Your task to perform on an android device: Open Google Maps and go to "Timeline" Image 0: 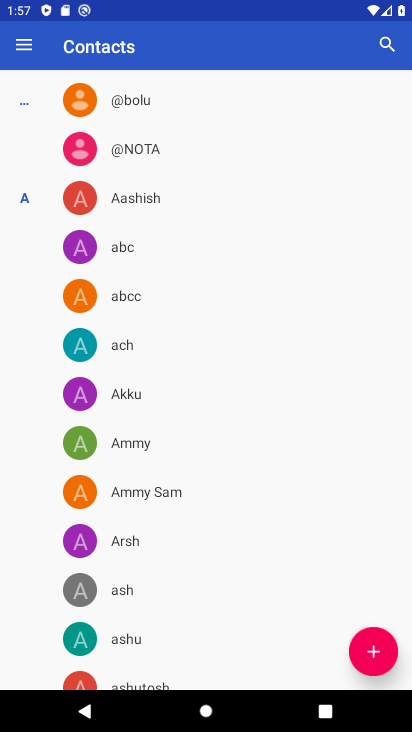
Step 0: press home button
Your task to perform on an android device: Open Google Maps and go to "Timeline" Image 1: 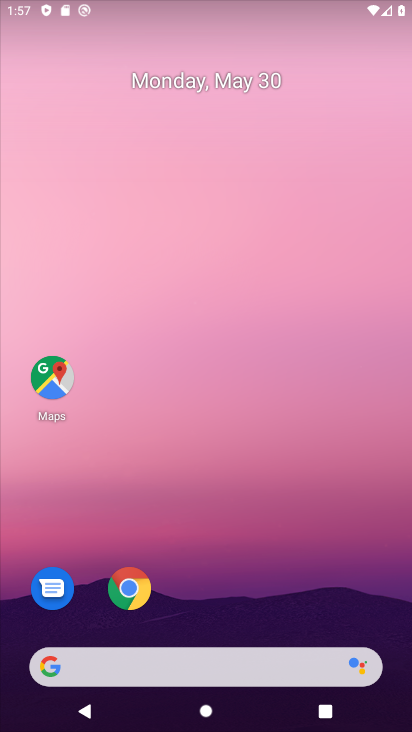
Step 1: drag from (232, 625) to (232, 311)
Your task to perform on an android device: Open Google Maps and go to "Timeline" Image 2: 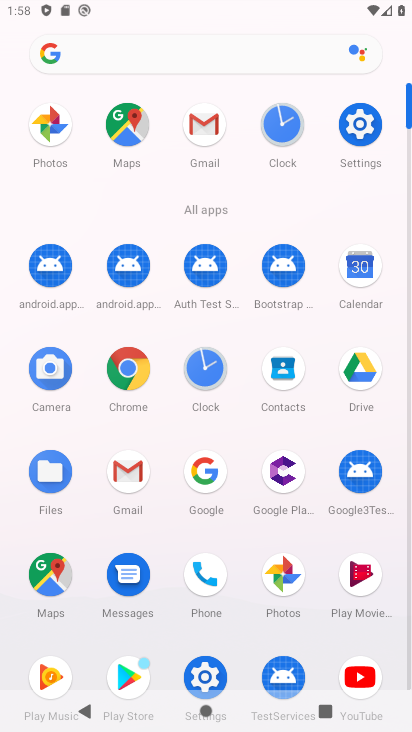
Step 2: click (128, 371)
Your task to perform on an android device: Open Google Maps and go to "Timeline" Image 3: 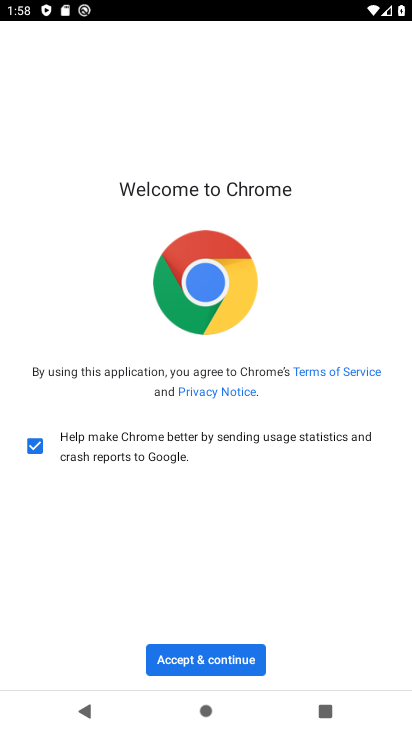
Step 3: press home button
Your task to perform on an android device: Open Google Maps and go to "Timeline" Image 4: 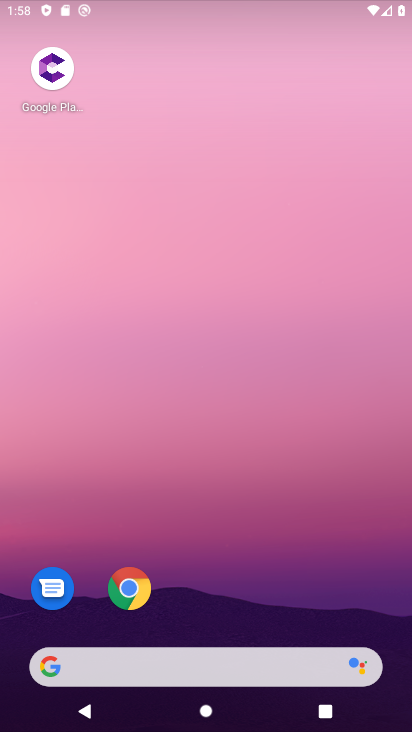
Step 4: drag from (206, 608) to (213, 318)
Your task to perform on an android device: Open Google Maps and go to "Timeline" Image 5: 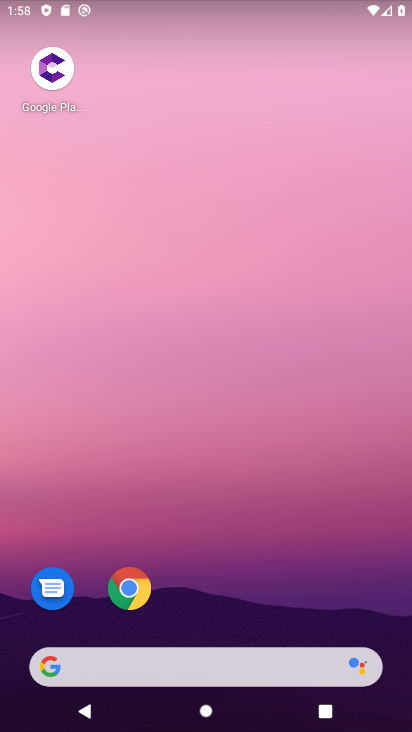
Step 5: drag from (266, 597) to (248, 190)
Your task to perform on an android device: Open Google Maps and go to "Timeline" Image 6: 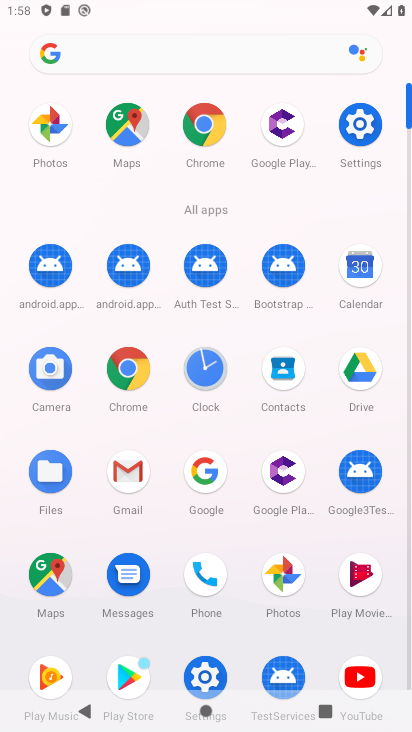
Step 6: click (45, 562)
Your task to perform on an android device: Open Google Maps and go to "Timeline" Image 7: 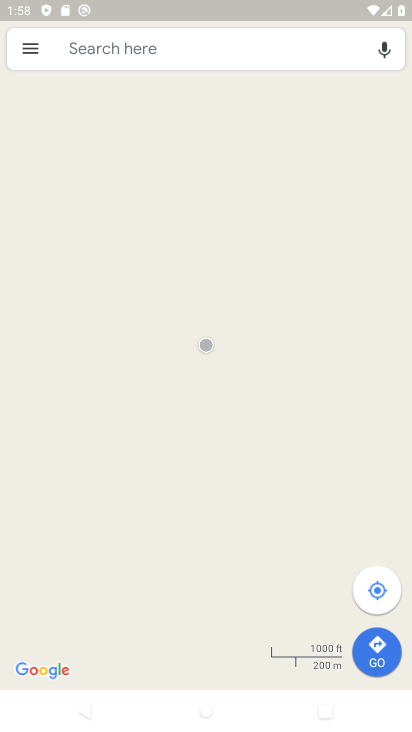
Step 7: click (36, 48)
Your task to perform on an android device: Open Google Maps and go to "Timeline" Image 8: 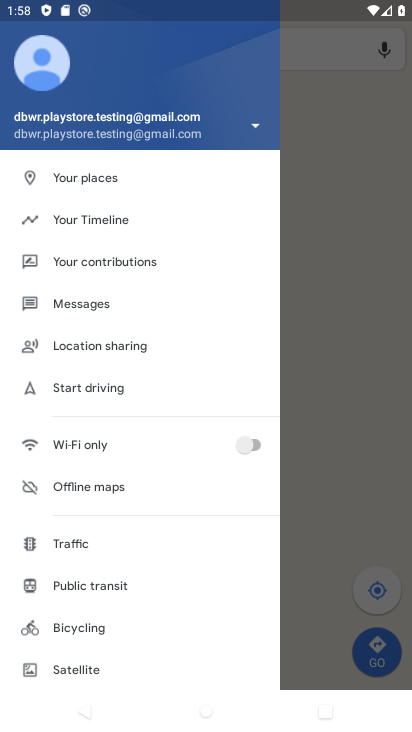
Step 8: click (98, 214)
Your task to perform on an android device: Open Google Maps and go to "Timeline" Image 9: 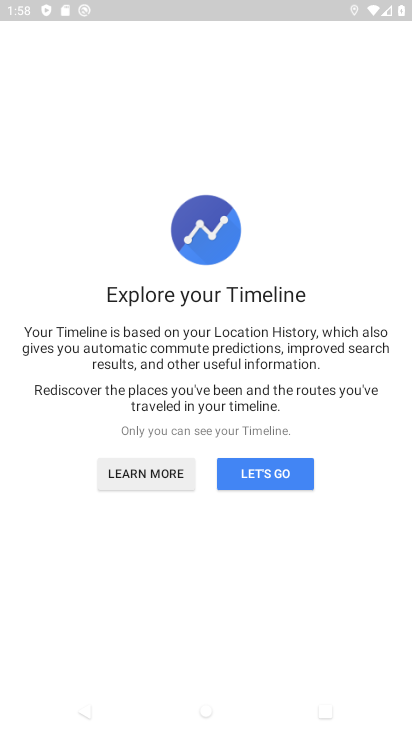
Step 9: click (292, 477)
Your task to perform on an android device: Open Google Maps and go to "Timeline" Image 10: 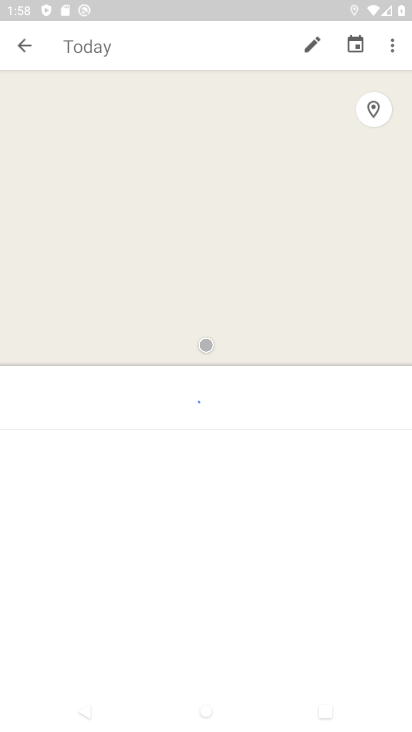
Step 10: task complete